Your task to perform on an android device: Open location settings Image 0: 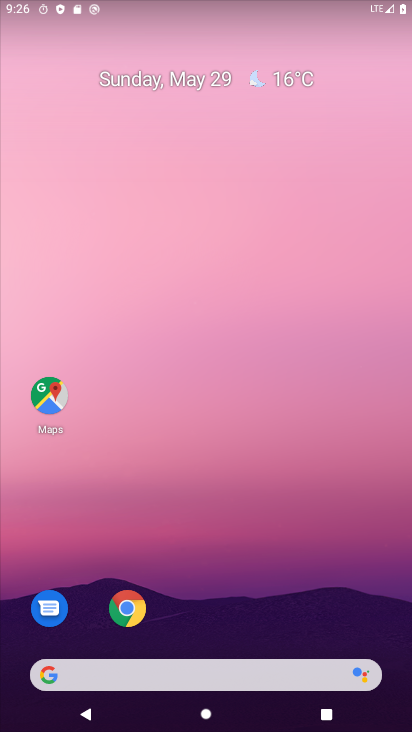
Step 0: drag from (207, 628) to (389, 5)
Your task to perform on an android device: Open location settings Image 1: 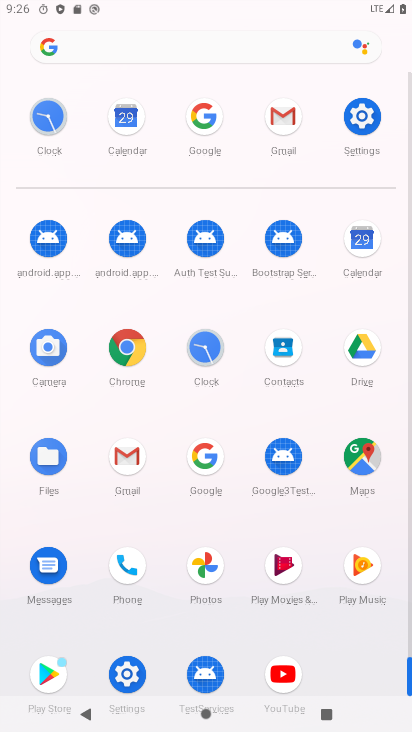
Step 1: click (363, 163)
Your task to perform on an android device: Open location settings Image 2: 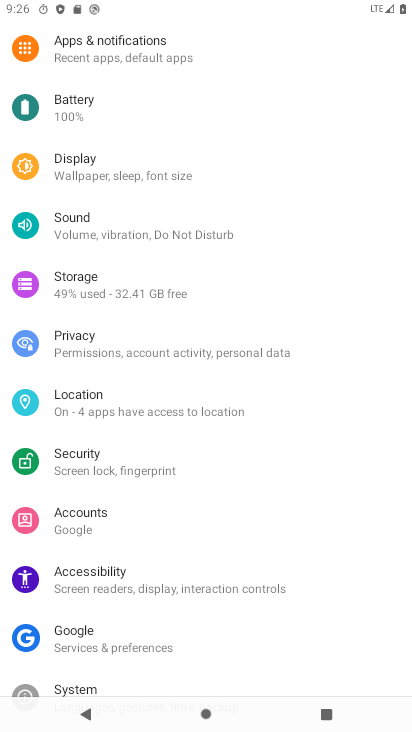
Step 2: click (71, 394)
Your task to perform on an android device: Open location settings Image 3: 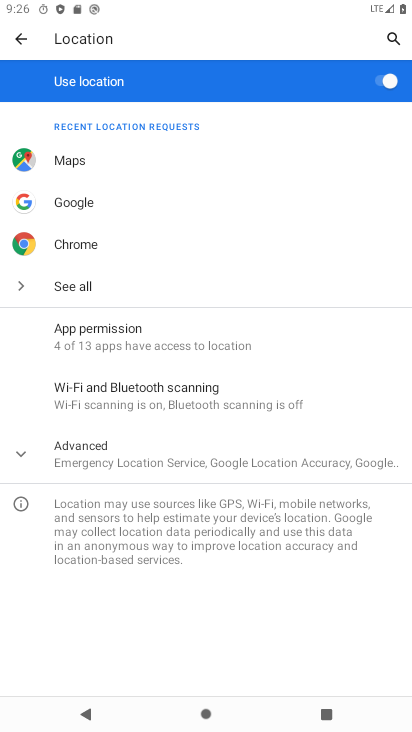
Step 3: task complete